Your task to perform on an android device: change keyboard looks Image 0: 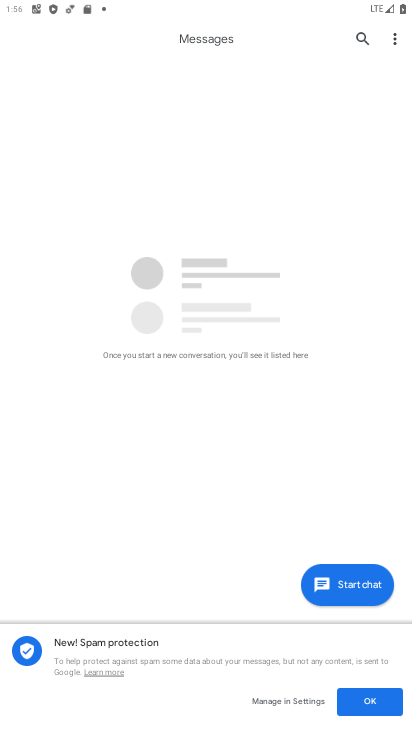
Step 0: press home button
Your task to perform on an android device: change keyboard looks Image 1: 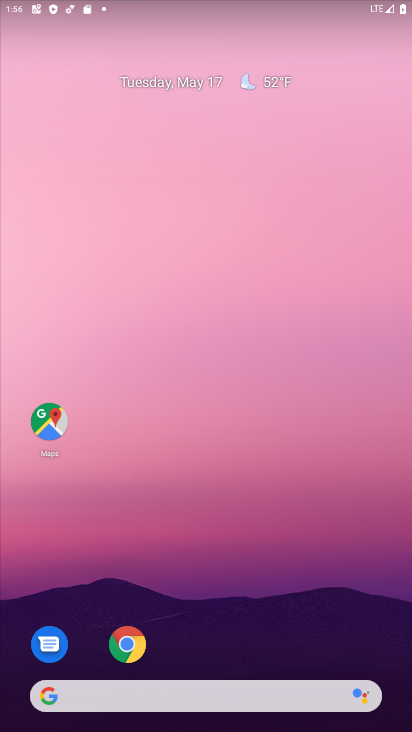
Step 1: drag from (222, 698) to (246, 212)
Your task to perform on an android device: change keyboard looks Image 2: 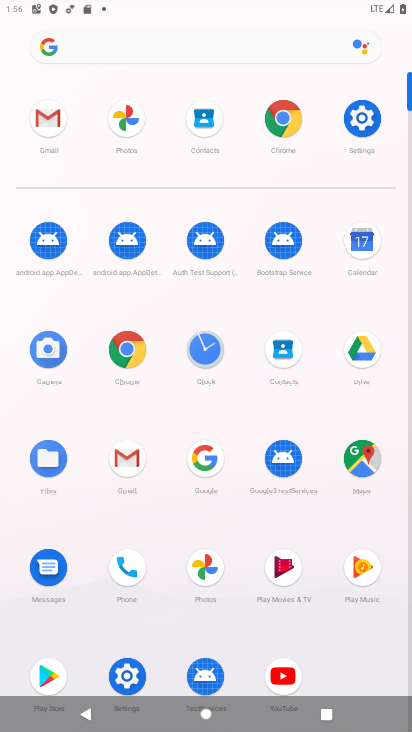
Step 2: click (349, 130)
Your task to perform on an android device: change keyboard looks Image 3: 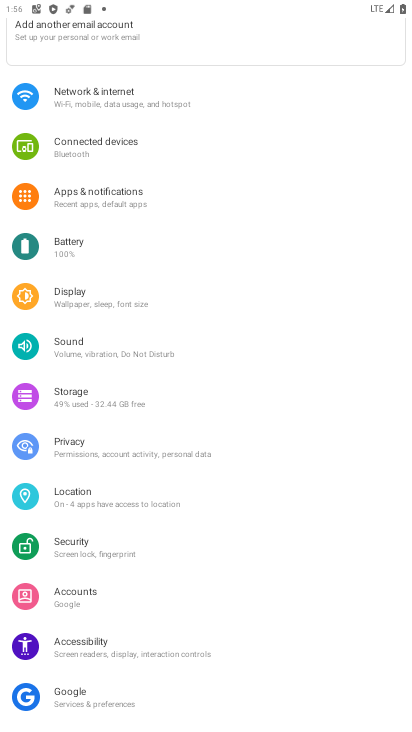
Step 3: drag from (110, 640) to (135, 110)
Your task to perform on an android device: change keyboard looks Image 4: 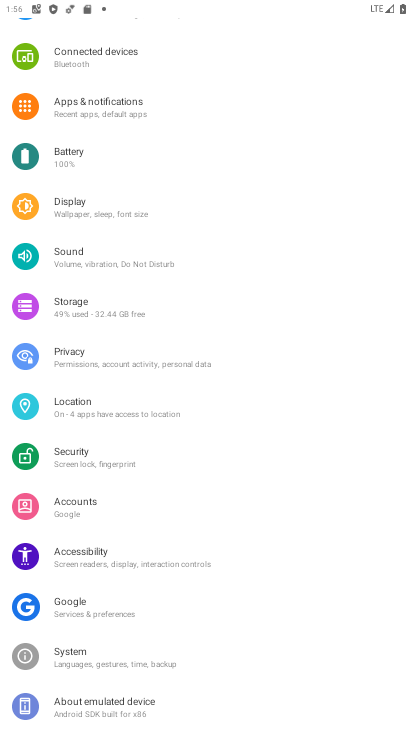
Step 4: click (96, 655)
Your task to perform on an android device: change keyboard looks Image 5: 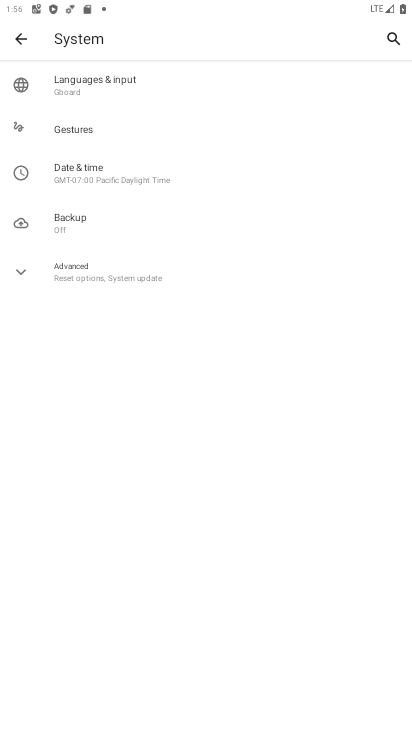
Step 5: click (88, 277)
Your task to perform on an android device: change keyboard looks Image 6: 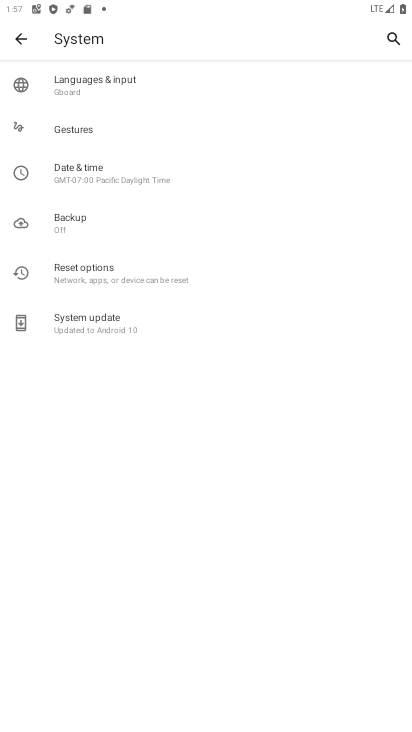
Step 6: click (106, 81)
Your task to perform on an android device: change keyboard looks Image 7: 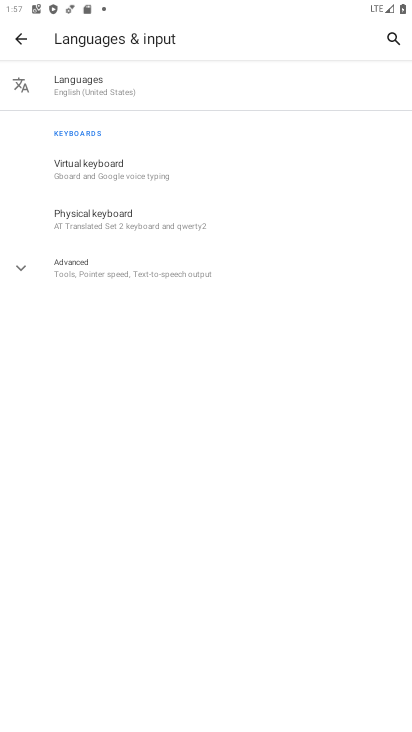
Step 7: click (77, 185)
Your task to perform on an android device: change keyboard looks Image 8: 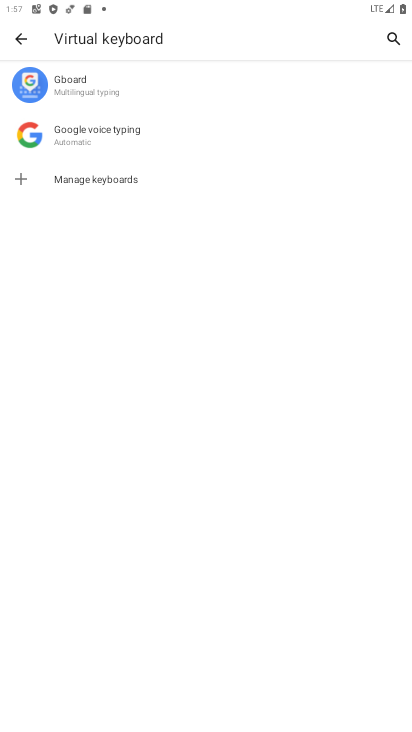
Step 8: click (77, 97)
Your task to perform on an android device: change keyboard looks Image 9: 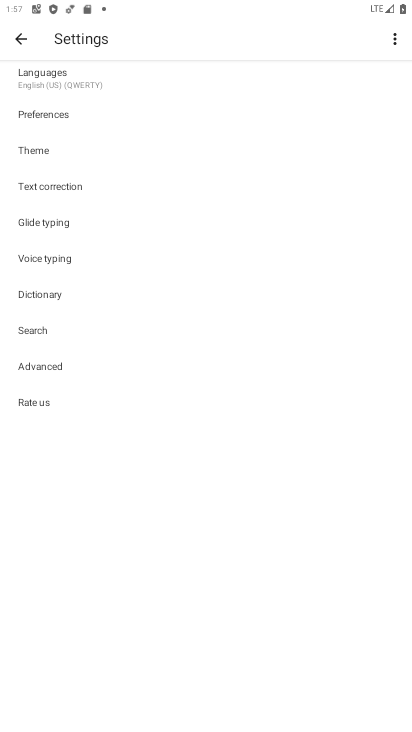
Step 9: click (57, 150)
Your task to perform on an android device: change keyboard looks Image 10: 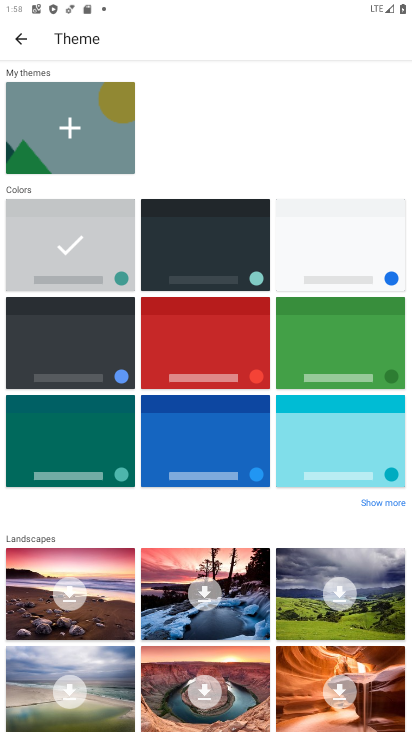
Step 10: click (230, 418)
Your task to perform on an android device: change keyboard looks Image 11: 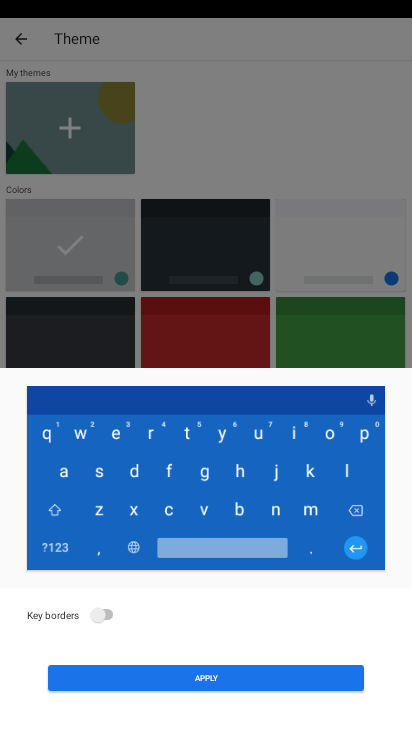
Step 11: click (214, 686)
Your task to perform on an android device: change keyboard looks Image 12: 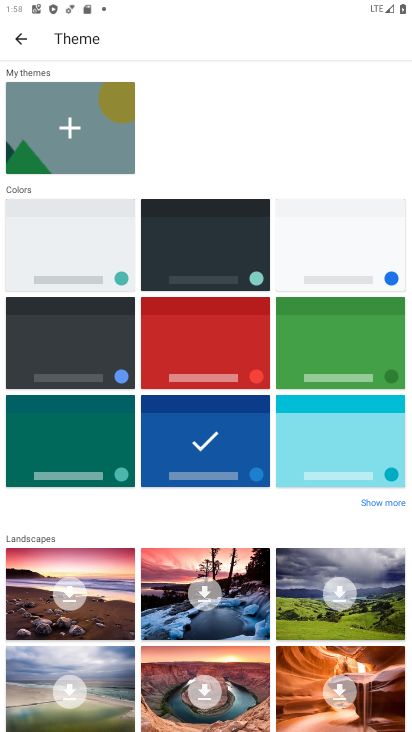
Step 12: task complete